Your task to perform on an android device: Open the map Image 0: 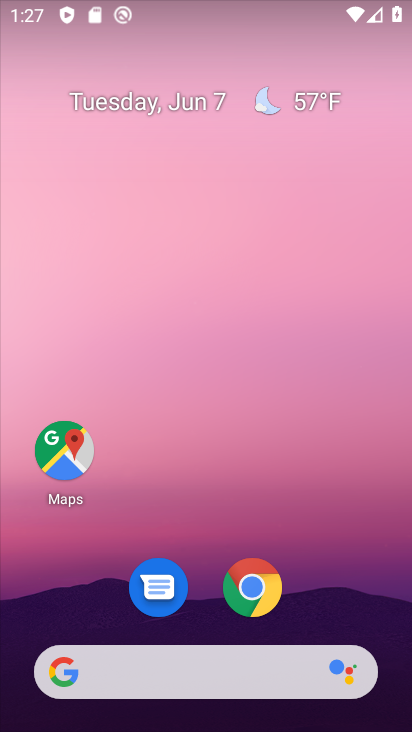
Step 0: click (73, 458)
Your task to perform on an android device: Open the map Image 1: 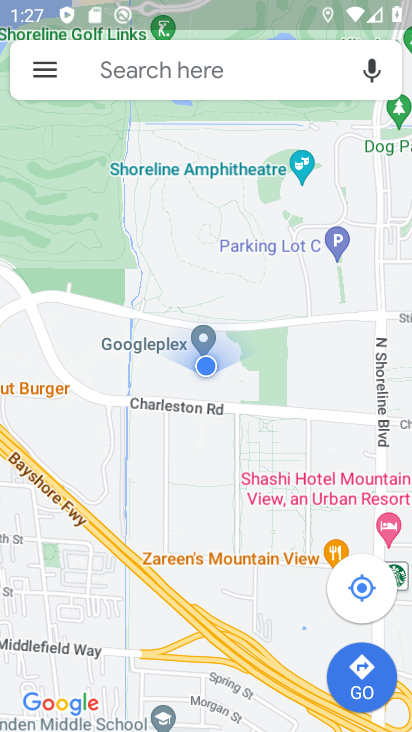
Step 1: task complete